Your task to perform on an android device: Open my contact list Image 0: 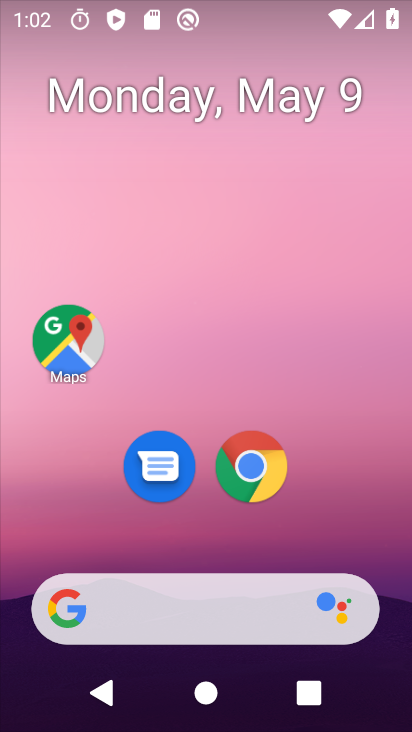
Step 0: drag from (290, 626) to (276, 46)
Your task to perform on an android device: Open my contact list Image 1: 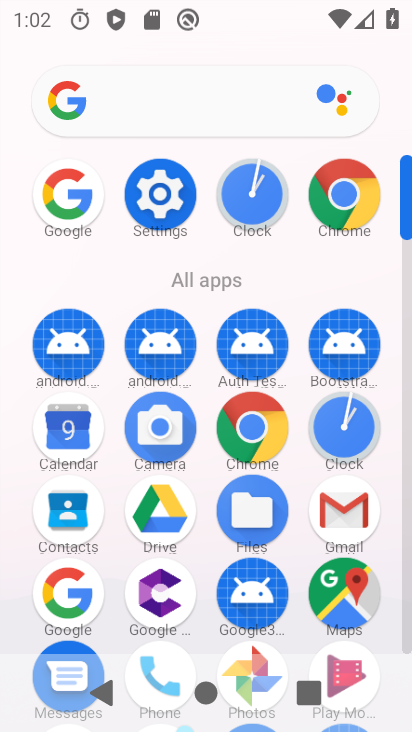
Step 1: click (68, 521)
Your task to perform on an android device: Open my contact list Image 2: 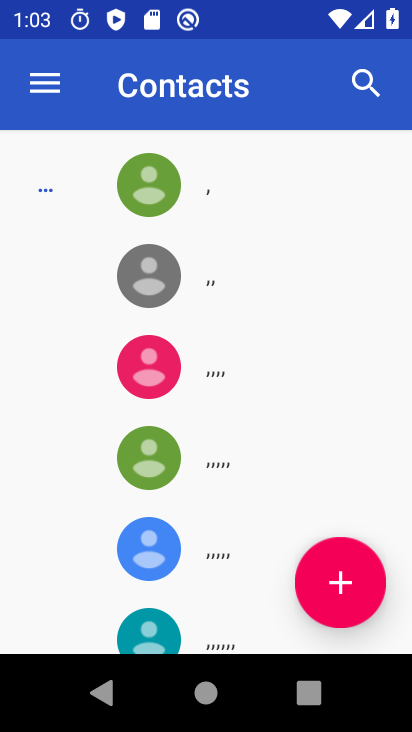
Step 2: task complete